Your task to perform on an android device: Toggle the flashlight Image 0: 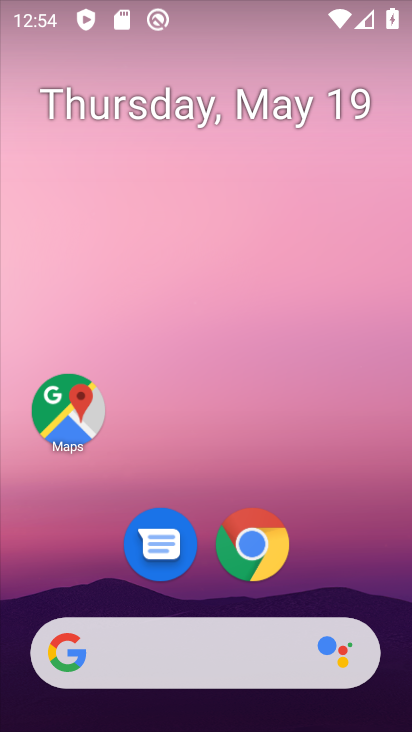
Step 0: drag from (239, 680) to (25, 109)
Your task to perform on an android device: Toggle the flashlight Image 1: 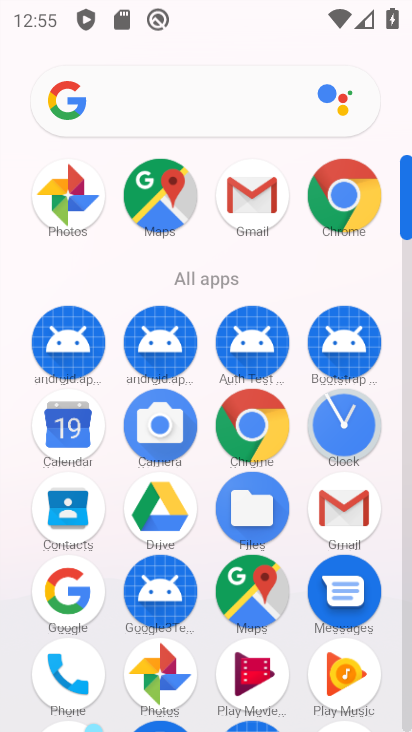
Step 1: drag from (104, 551) to (0, 260)
Your task to perform on an android device: Toggle the flashlight Image 2: 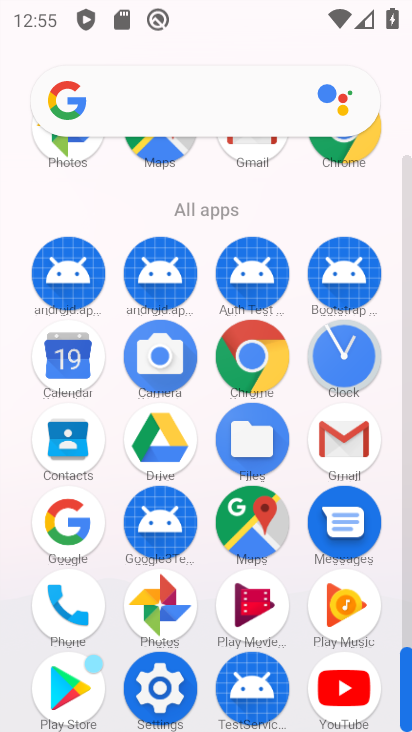
Step 2: click (156, 670)
Your task to perform on an android device: Toggle the flashlight Image 3: 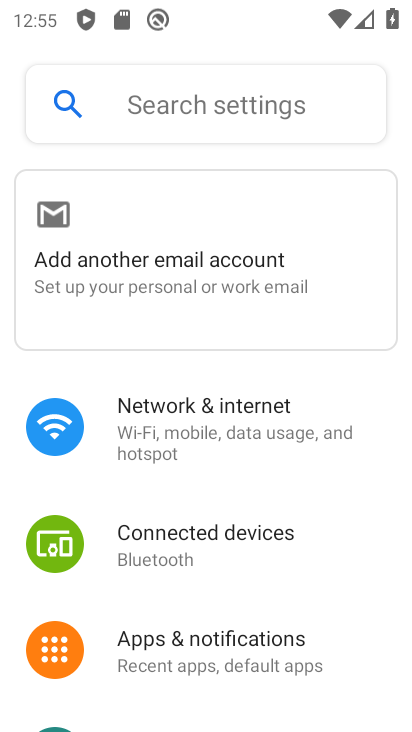
Step 3: click (138, 106)
Your task to perform on an android device: Toggle the flashlight Image 4: 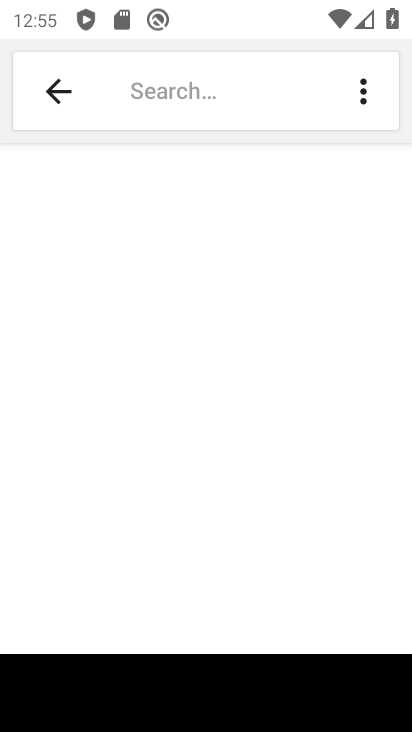
Step 4: drag from (383, 682) to (307, 556)
Your task to perform on an android device: Toggle the flashlight Image 5: 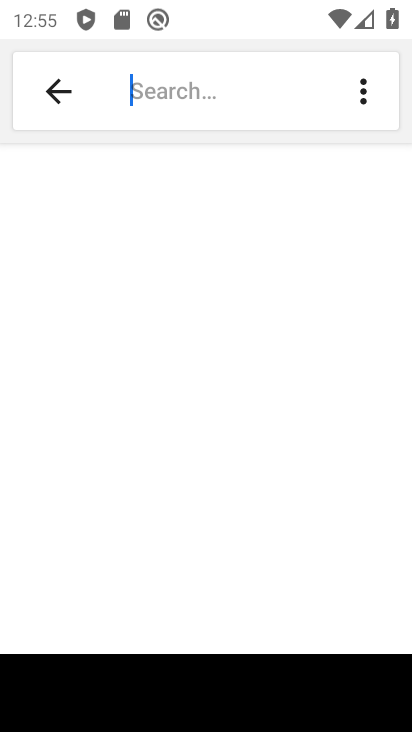
Step 5: click (384, 699)
Your task to perform on an android device: Toggle the flashlight Image 6: 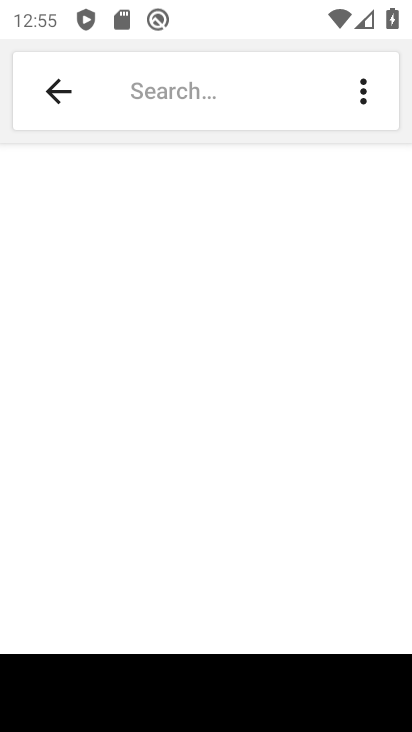
Step 6: drag from (359, 694) to (296, 622)
Your task to perform on an android device: Toggle the flashlight Image 7: 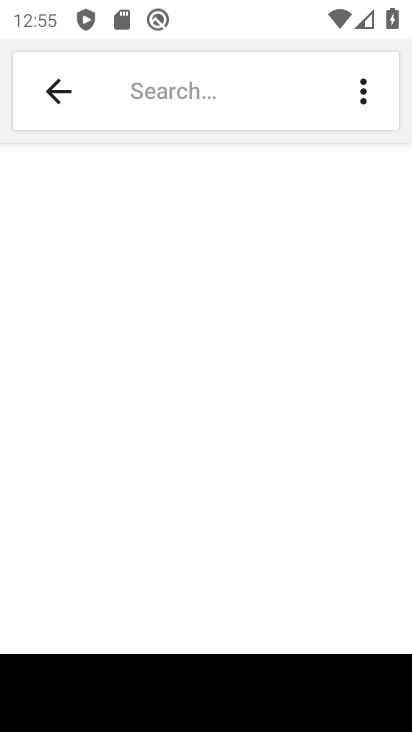
Step 7: click (384, 701)
Your task to perform on an android device: Toggle the flashlight Image 8: 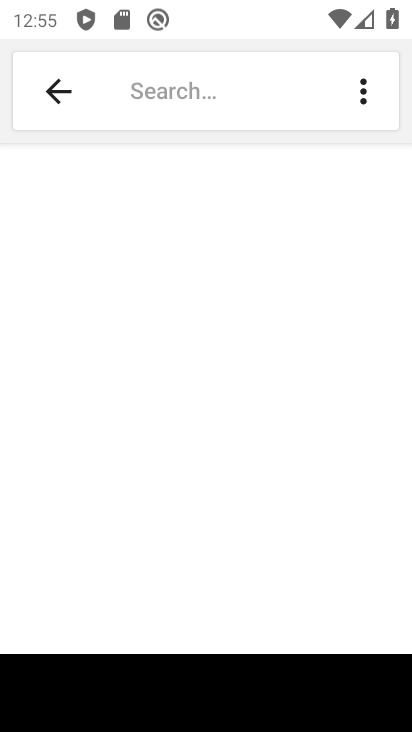
Step 8: drag from (388, 683) to (380, 561)
Your task to perform on an android device: Toggle the flashlight Image 9: 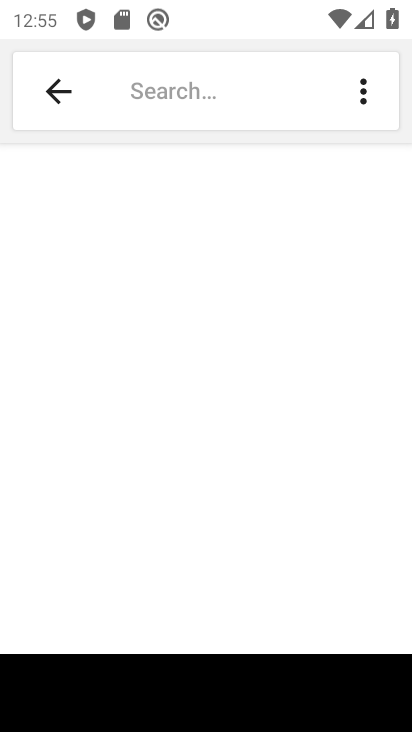
Step 9: click (194, 102)
Your task to perform on an android device: Toggle the flashlight Image 10: 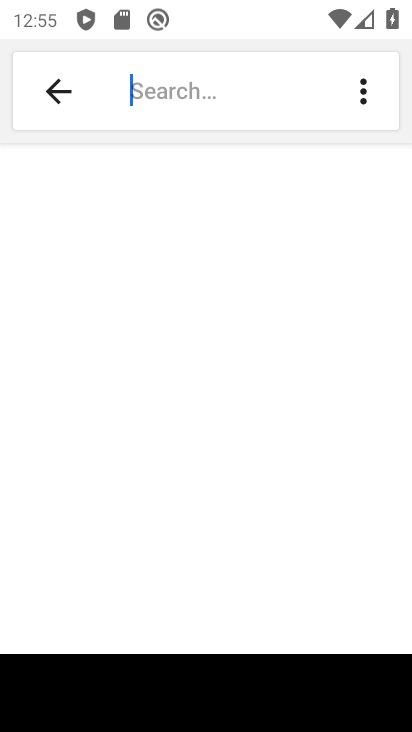
Step 10: drag from (392, 696) to (356, 528)
Your task to perform on an android device: Toggle the flashlight Image 11: 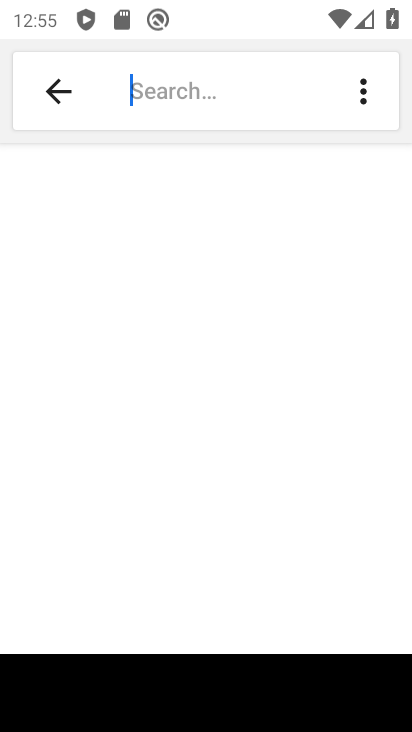
Step 11: drag from (380, 706) to (359, 568)
Your task to perform on an android device: Toggle the flashlight Image 12: 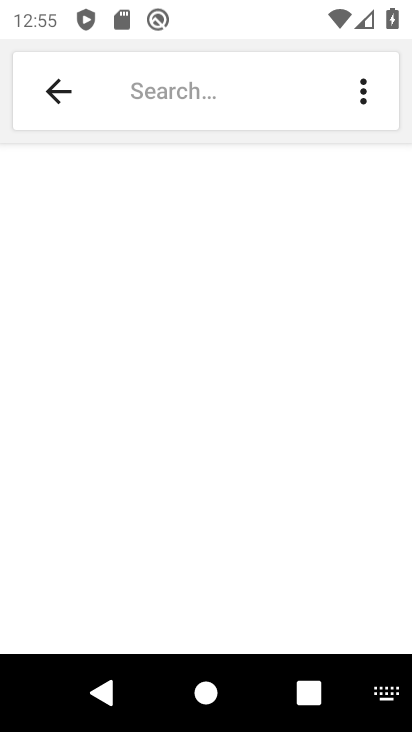
Step 12: click (378, 696)
Your task to perform on an android device: Toggle the flashlight Image 13: 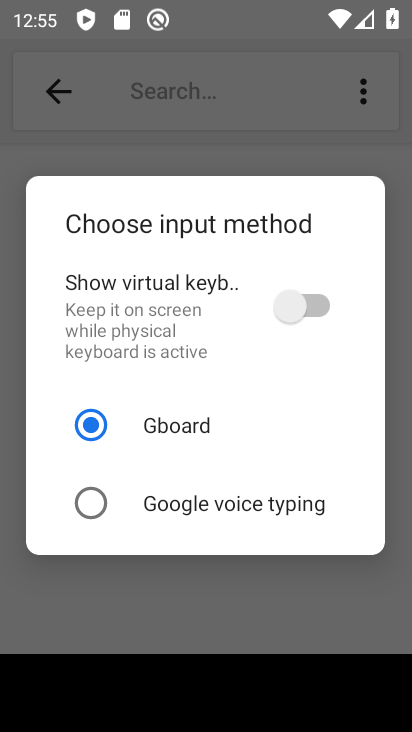
Step 13: click (321, 315)
Your task to perform on an android device: Toggle the flashlight Image 14: 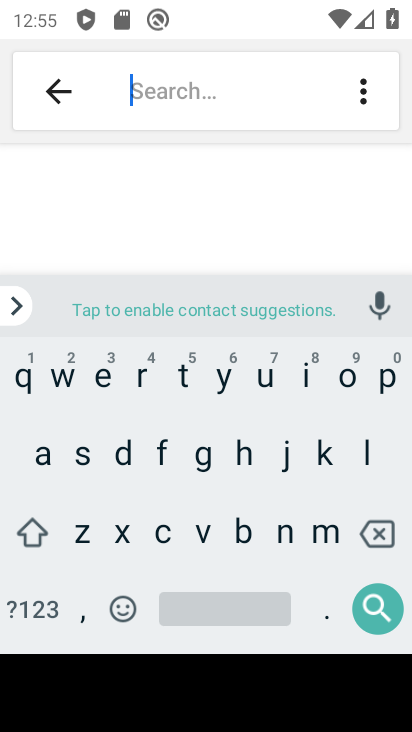
Step 14: click (166, 446)
Your task to perform on an android device: Toggle the flashlight Image 15: 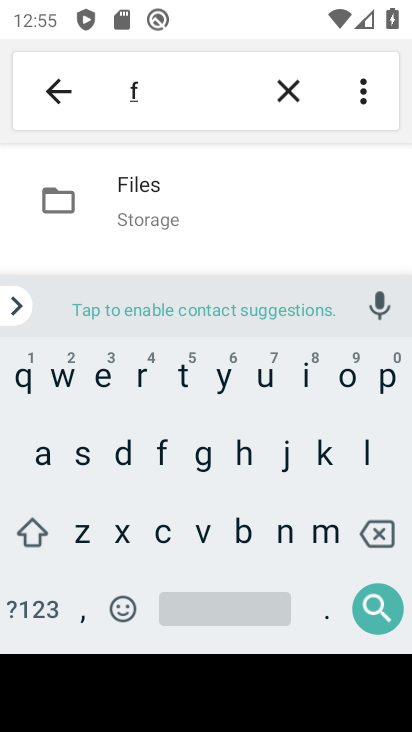
Step 15: click (360, 457)
Your task to perform on an android device: Toggle the flashlight Image 16: 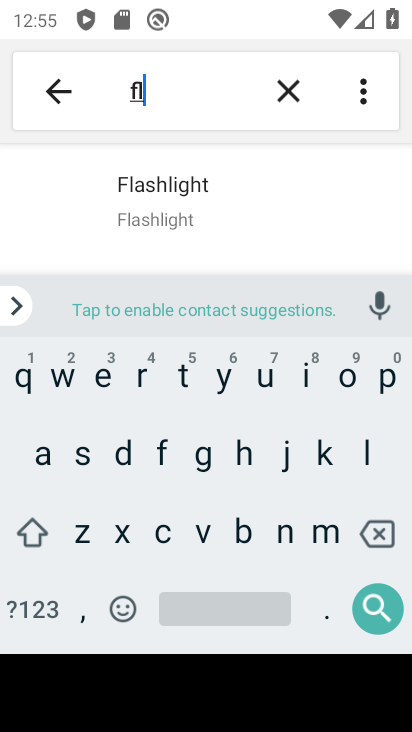
Step 16: click (160, 186)
Your task to perform on an android device: Toggle the flashlight Image 17: 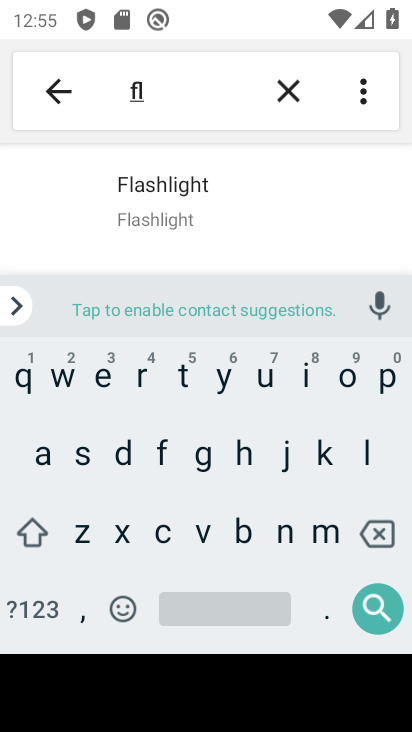
Step 17: task complete